Your task to perform on an android device: turn on sleep mode Image 0: 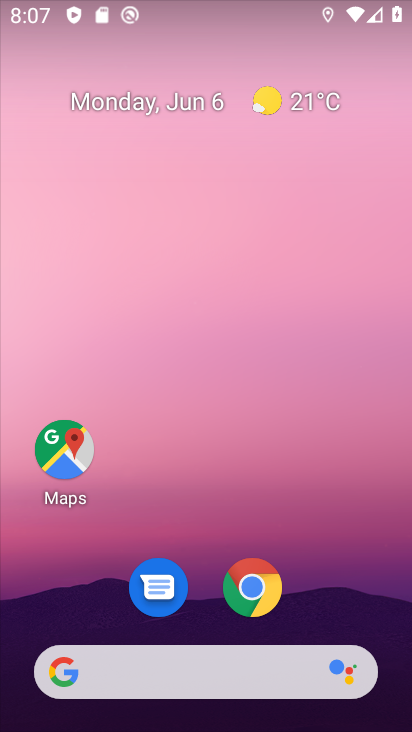
Step 0: drag from (344, 558) to (308, 279)
Your task to perform on an android device: turn on sleep mode Image 1: 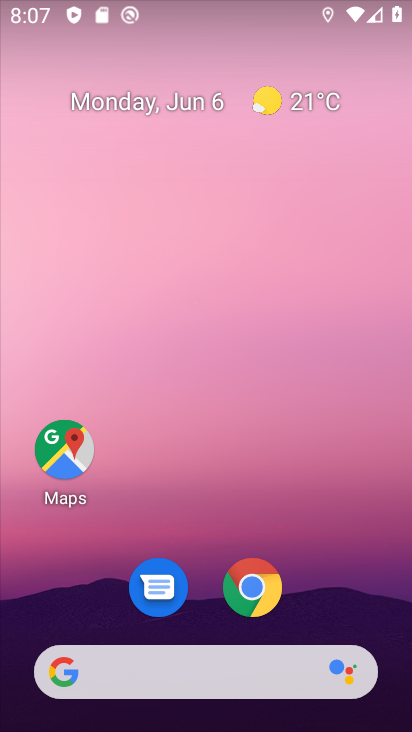
Step 1: drag from (317, 601) to (311, 188)
Your task to perform on an android device: turn on sleep mode Image 2: 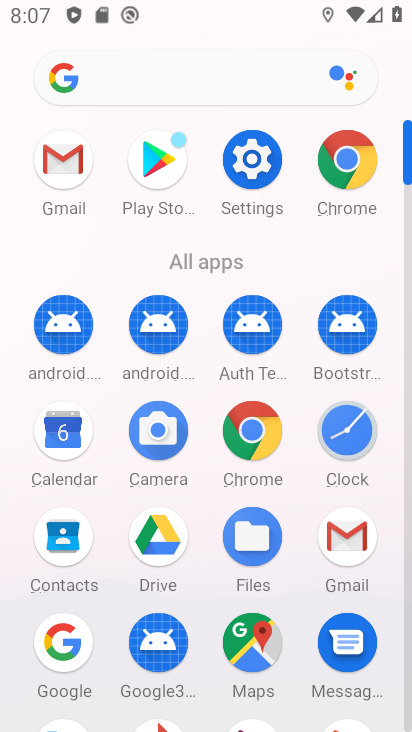
Step 2: click (244, 158)
Your task to perform on an android device: turn on sleep mode Image 3: 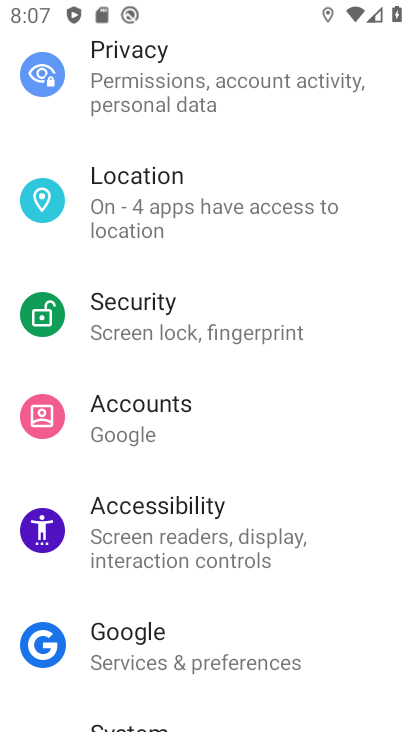
Step 3: drag from (220, 180) to (183, 598)
Your task to perform on an android device: turn on sleep mode Image 4: 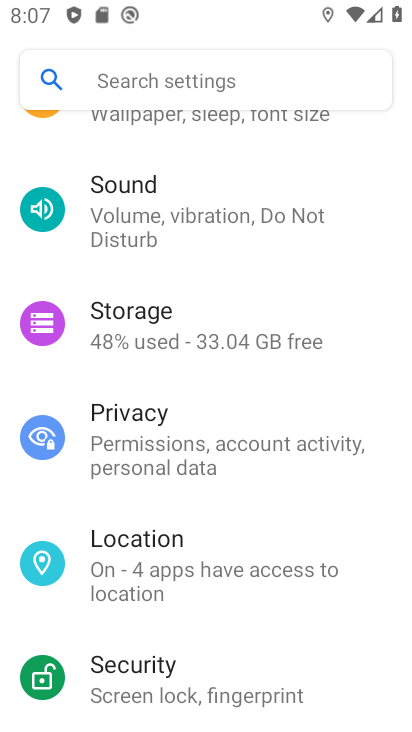
Step 4: drag from (181, 247) to (192, 549)
Your task to perform on an android device: turn on sleep mode Image 5: 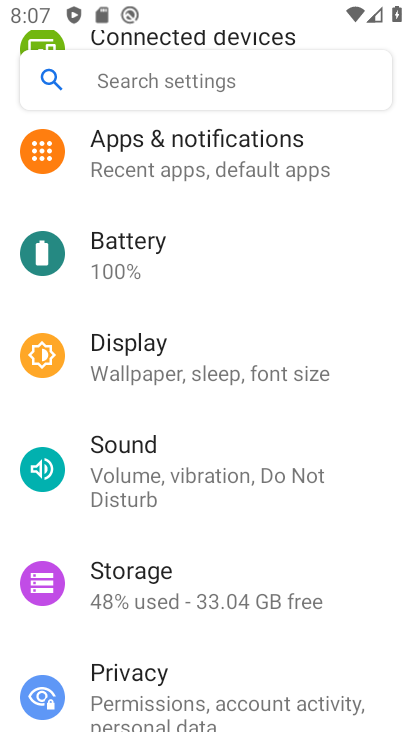
Step 5: click (172, 383)
Your task to perform on an android device: turn on sleep mode Image 6: 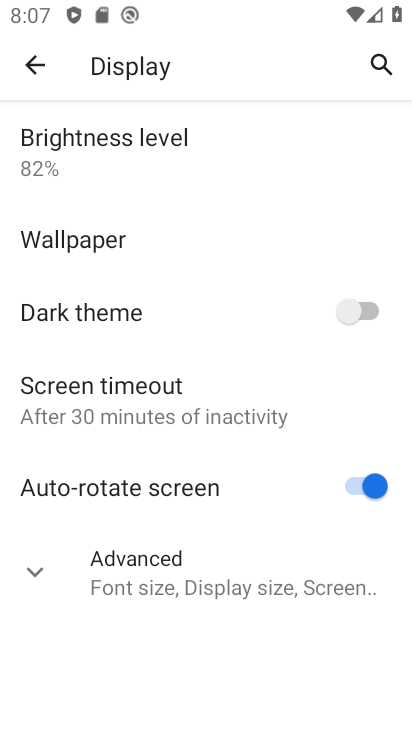
Step 6: click (156, 380)
Your task to perform on an android device: turn on sleep mode Image 7: 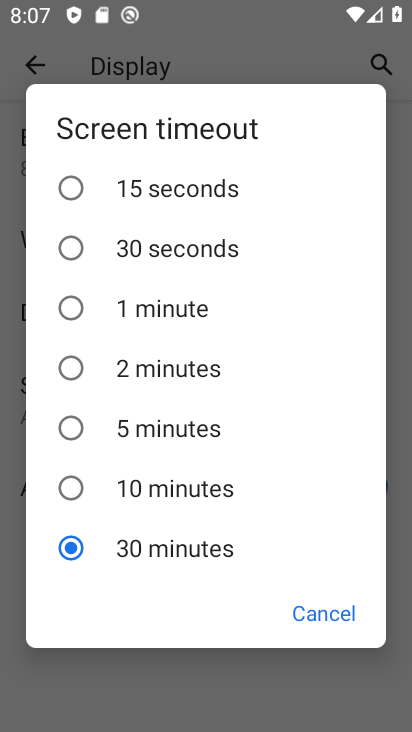
Step 7: task complete